Your task to perform on an android device: change the clock style Image 0: 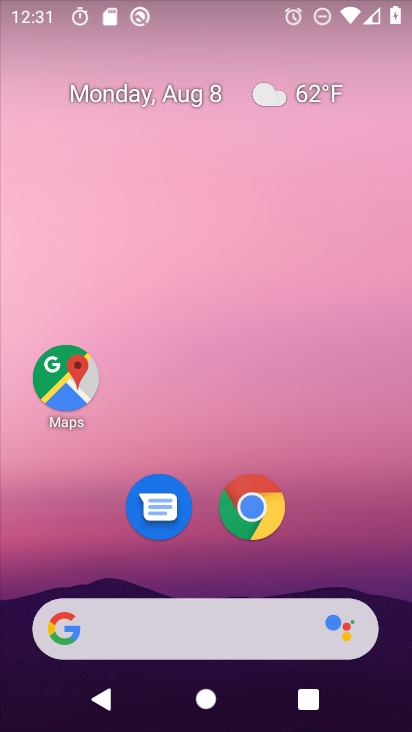
Step 0: drag from (333, 544) to (244, 20)
Your task to perform on an android device: change the clock style Image 1: 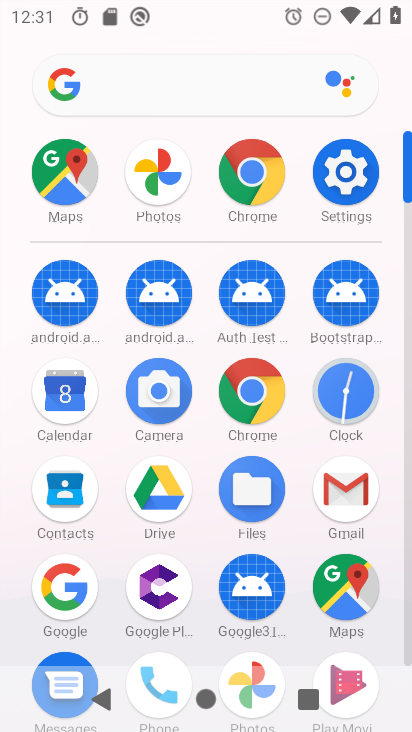
Step 1: click (345, 387)
Your task to perform on an android device: change the clock style Image 2: 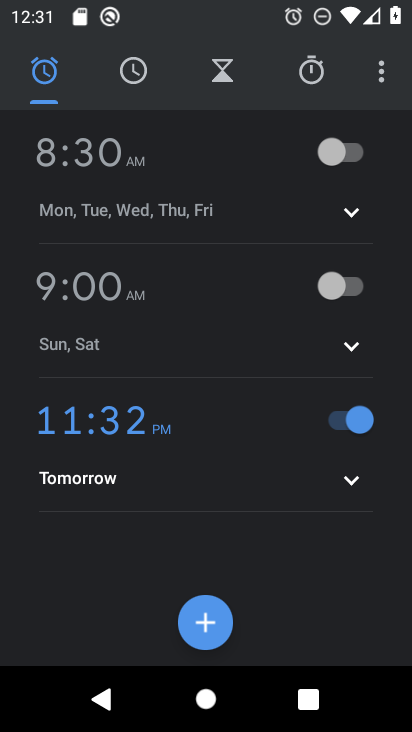
Step 2: click (380, 65)
Your task to perform on an android device: change the clock style Image 3: 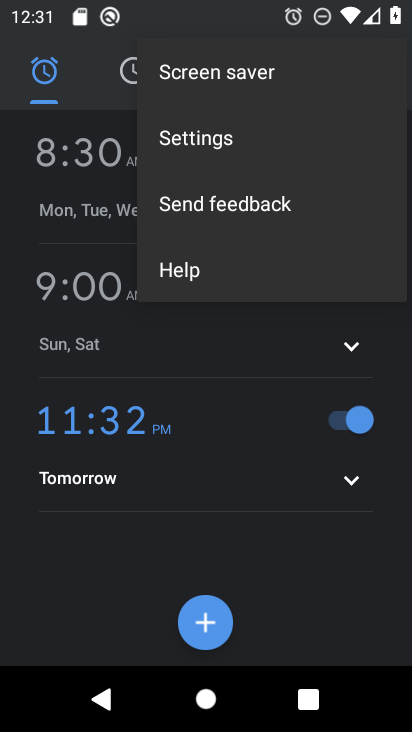
Step 3: click (199, 148)
Your task to perform on an android device: change the clock style Image 4: 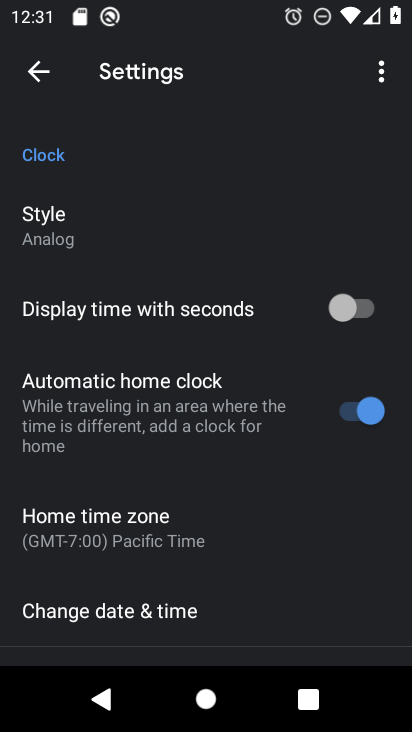
Step 4: click (58, 210)
Your task to perform on an android device: change the clock style Image 5: 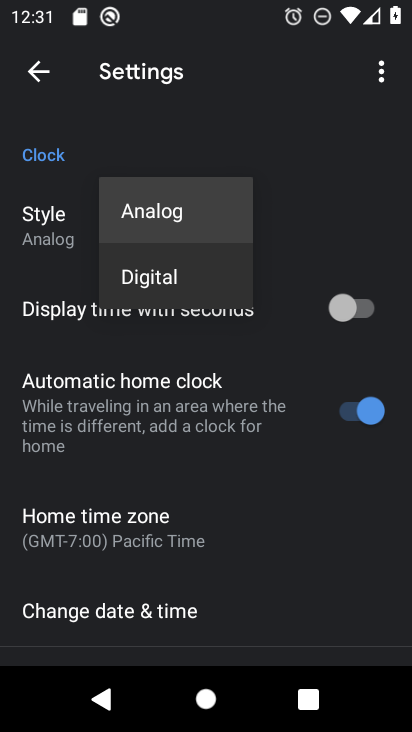
Step 5: click (160, 273)
Your task to perform on an android device: change the clock style Image 6: 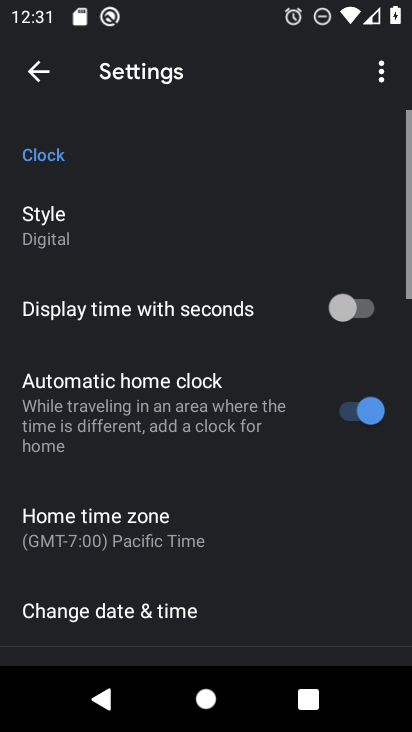
Step 6: task complete